Your task to perform on an android device: Open the map Image 0: 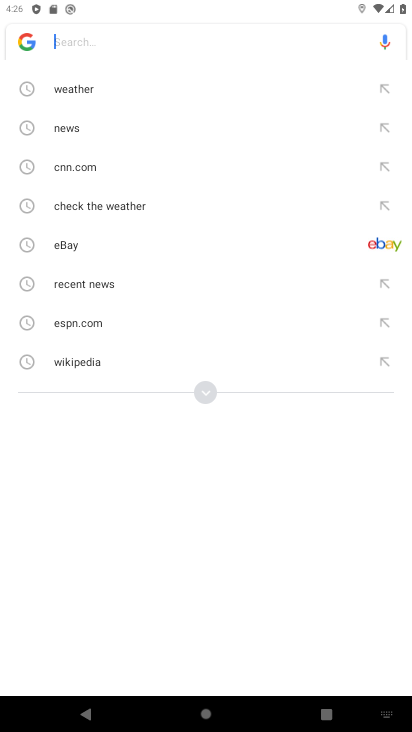
Step 0: press home button
Your task to perform on an android device: Open the map Image 1: 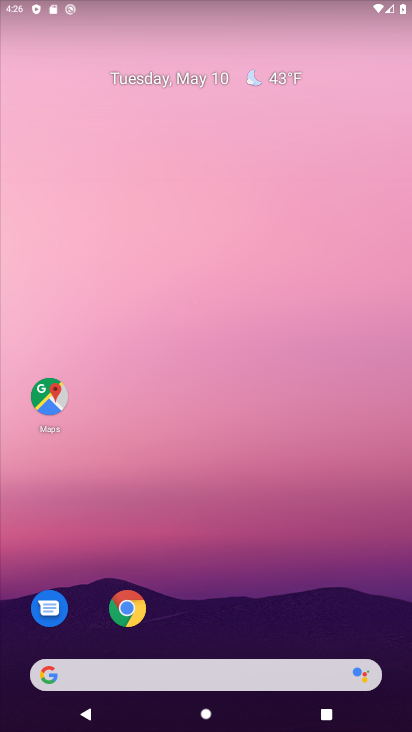
Step 1: click (46, 391)
Your task to perform on an android device: Open the map Image 2: 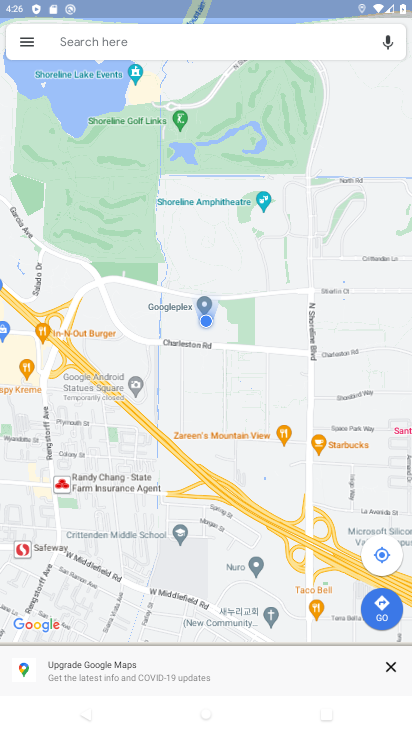
Step 2: task complete